Your task to perform on an android device: Go to internet settings Image 0: 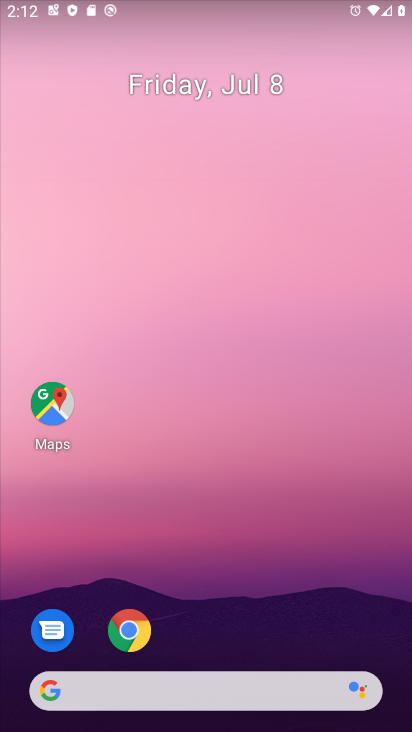
Step 0: drag from (249, 650) to (287, 36)
Your task to perform on an android device: Go to internet settings Image 1: 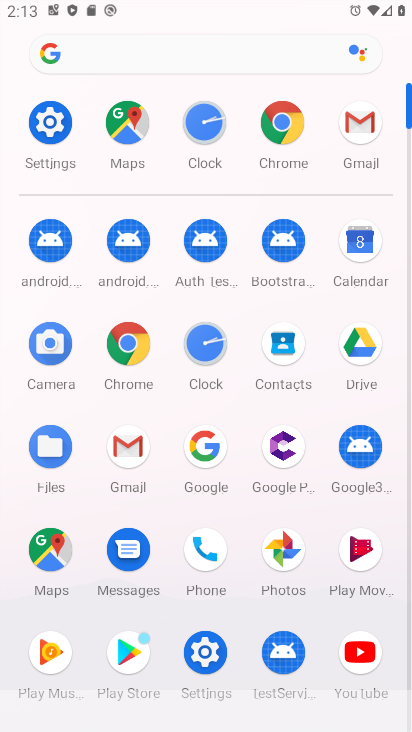
Step 1: click (49, 116)
Your task to perform on an android device: Go to internet settings Image 2: 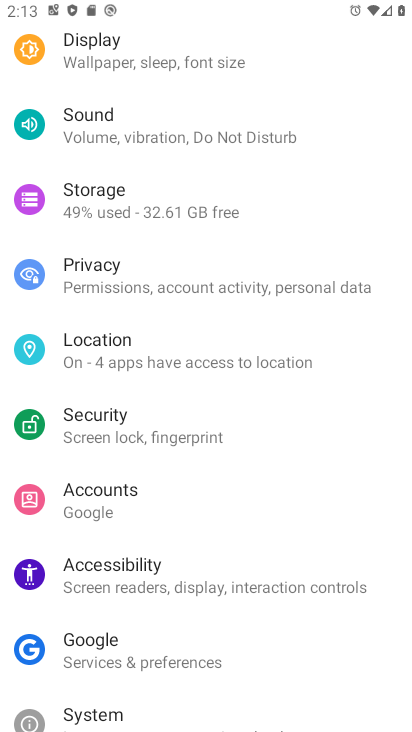
Step 2: drag from (143, 107) to (157, 668)
Your task to perform on an android device: Go to internet settings Image 3: 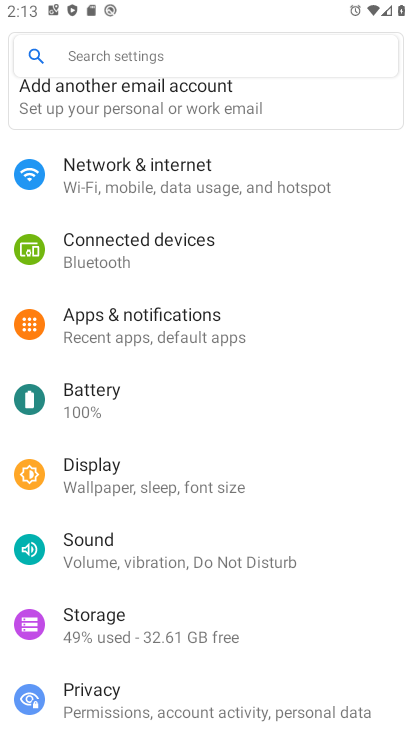
Step 3: click (150, 173)
Your task to perform on an android device: Go to internet settings Image 4: 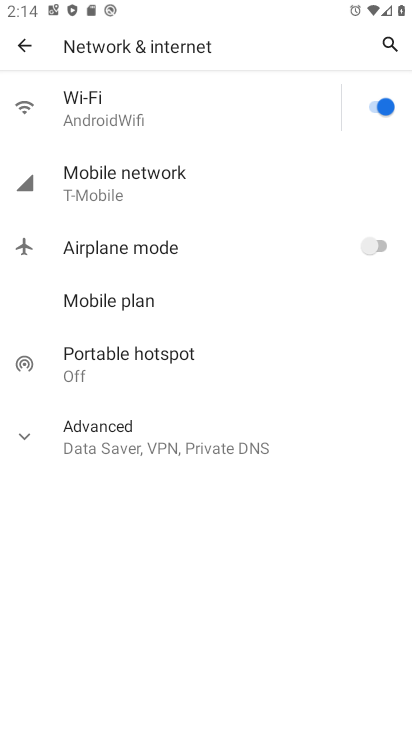
Step 4: click (30, 443)
Your task to perform on an android device: Go to internet settings Image 5: 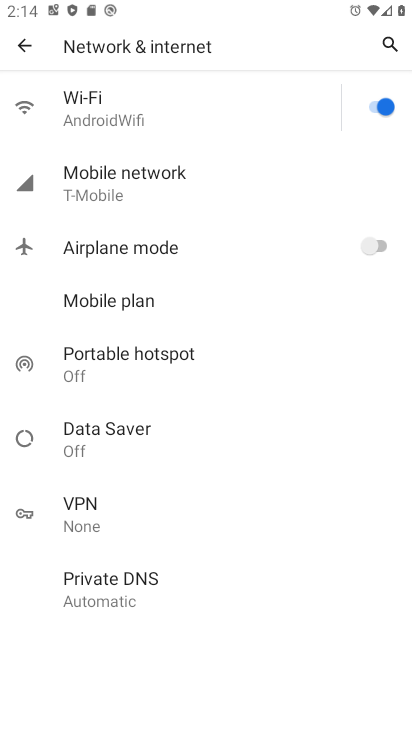
Step 5: task complete